Your task to perform on an android device: uninstall "Messenger Lite" Image 0: 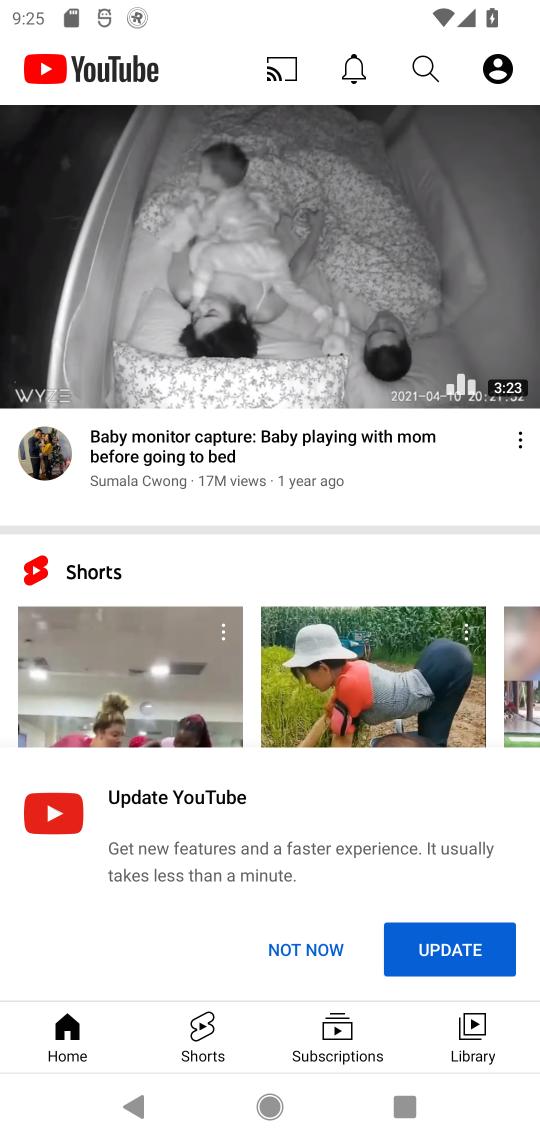
Step 0: press home button
Your task to perform on an android device: uninstall "Messenger Lite" Image 1: 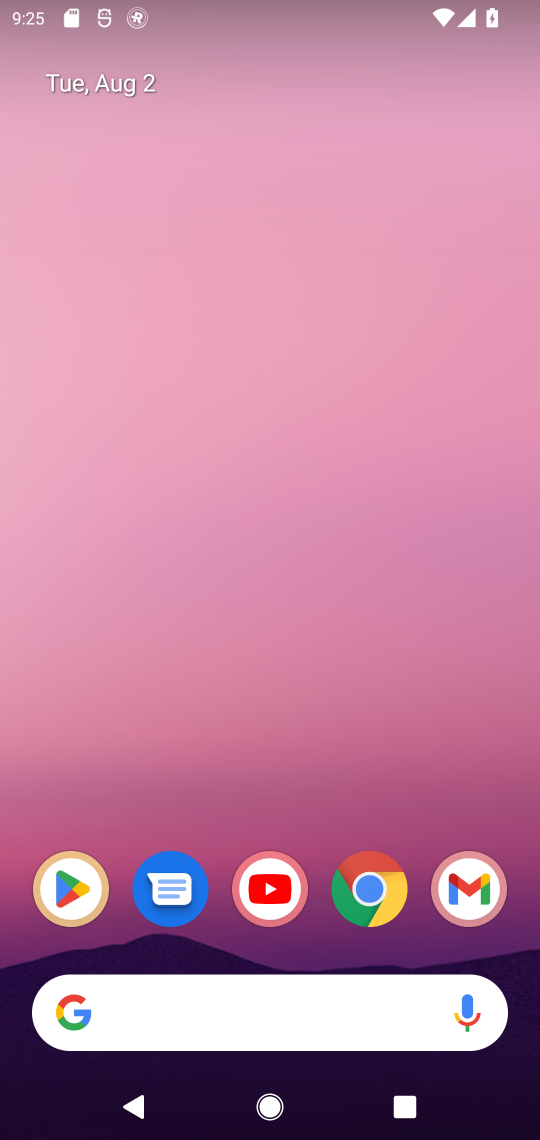
Step 1: click (74, 889)
Your task to perform on an android device: uninstall "Messenger Lite" Image 2: 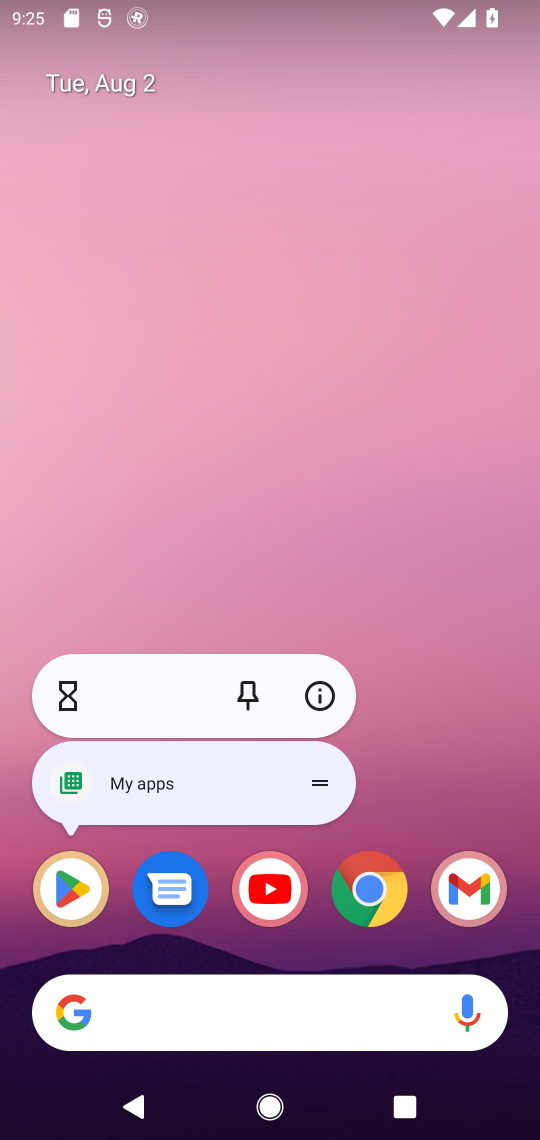
Step 2: click (74, 889)
Your task to perform on an android device: uninstall "Messenger Lite" Image 3: 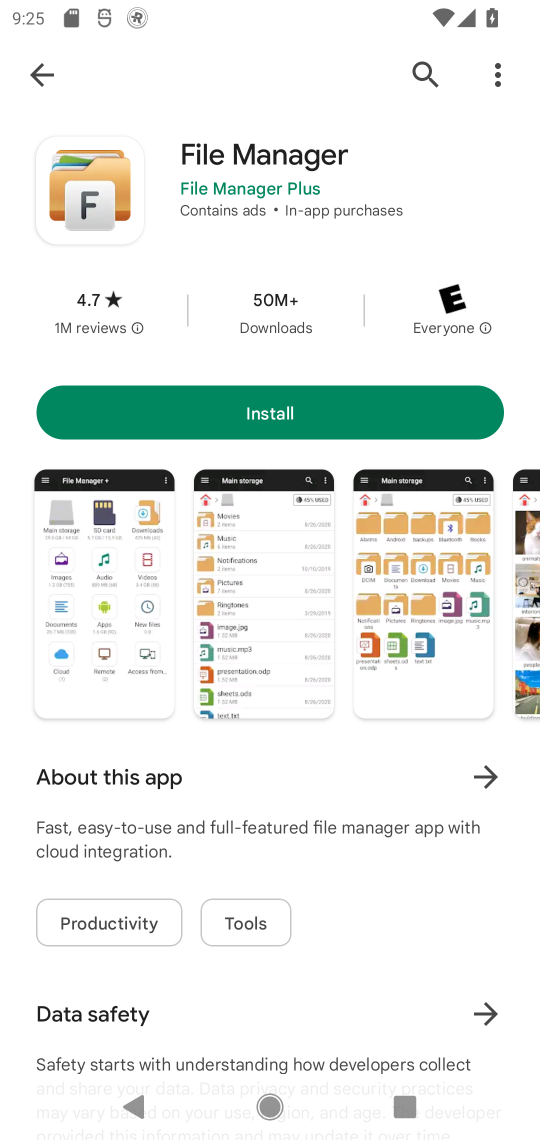
Step 3: click (420, 67)
Your task to perform on an android device: uninstall "Messenger Lite" Image 4: 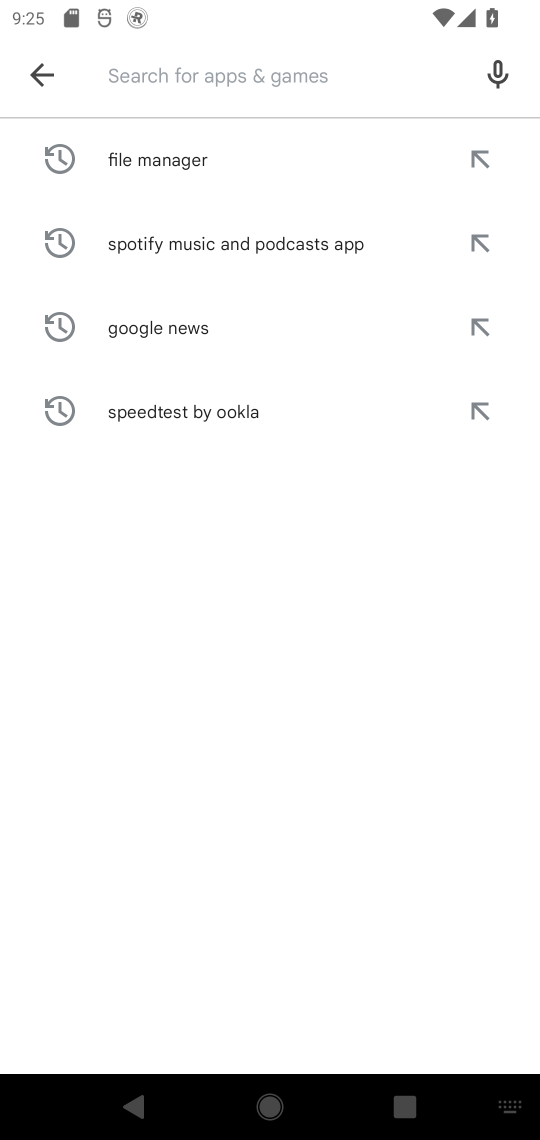
Step 4: type "Messenger Lite"
Your task to perform on an android device: uninstall "Messenger Lite" Image 5: 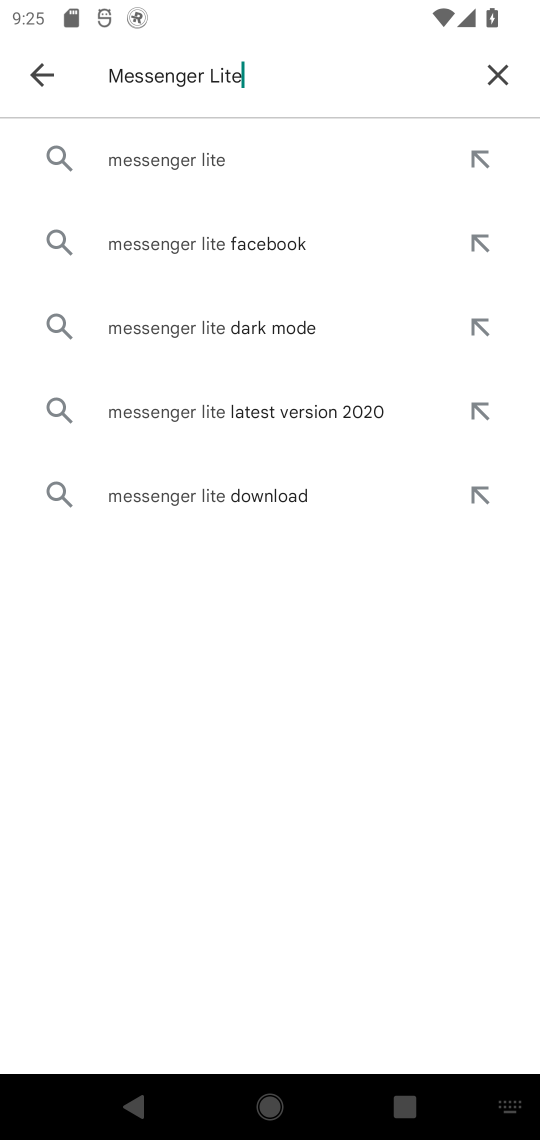
Step 5: click (179, 162)
Your task to perform on an android device: uninstall "Messenger Lite" Image 6: 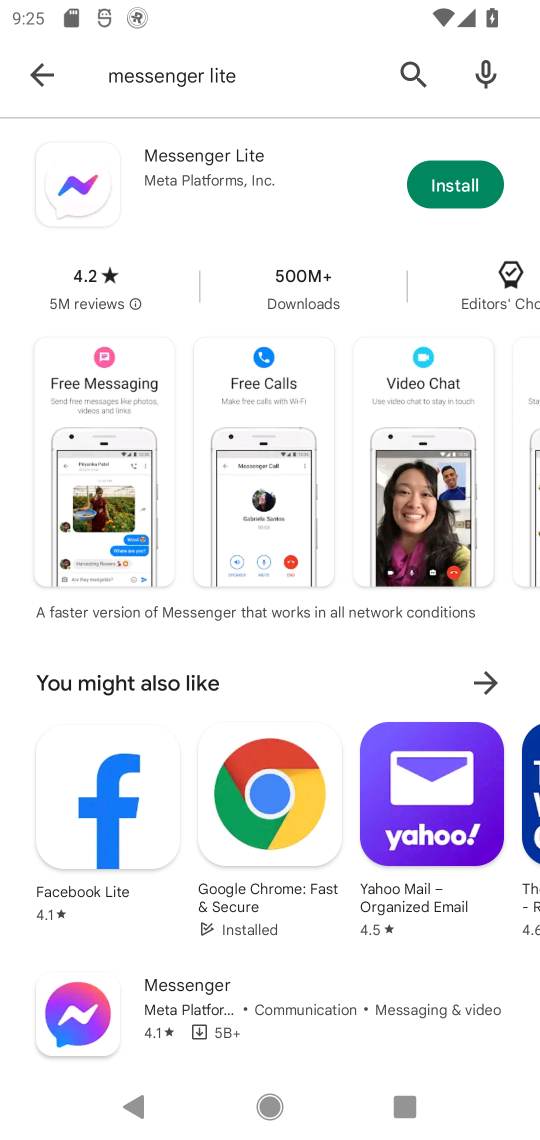
Step 6: task complete